Your task to perform on an android device: check storage Image 0: 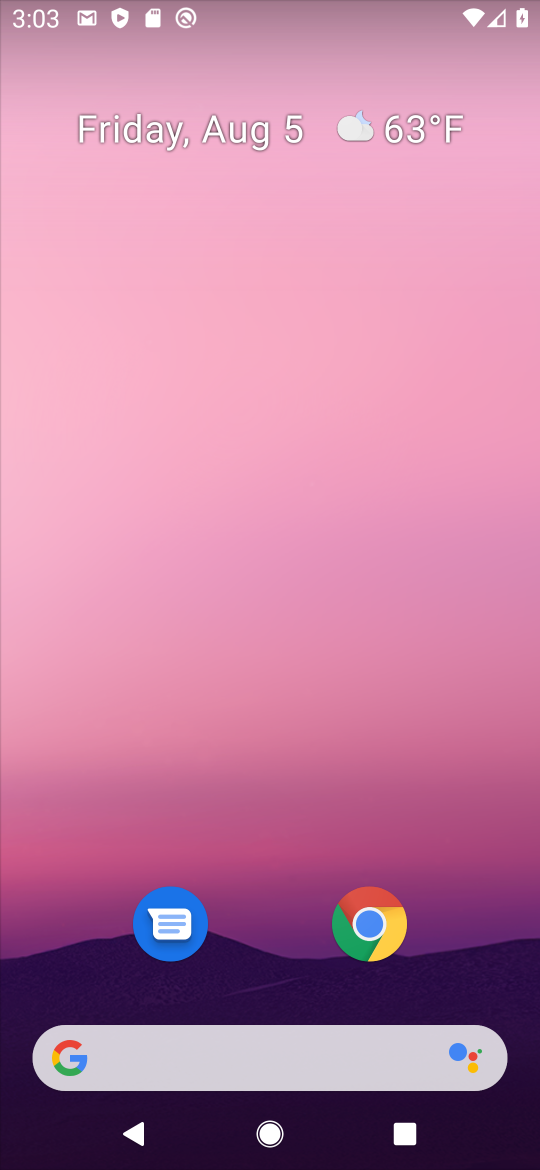
Step 0: drag from (276, 978) to (319, 150)
Your task to perform on an android device: check storage Image 1: 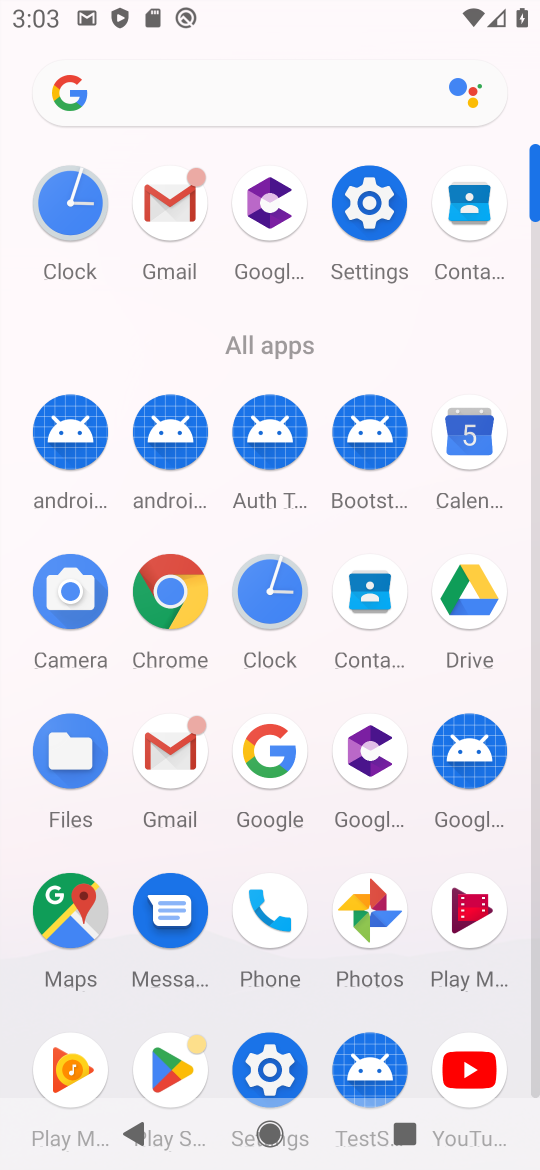
Step 1: click (277, 1052)
Your task to perform on an android device: check storage Image 2: 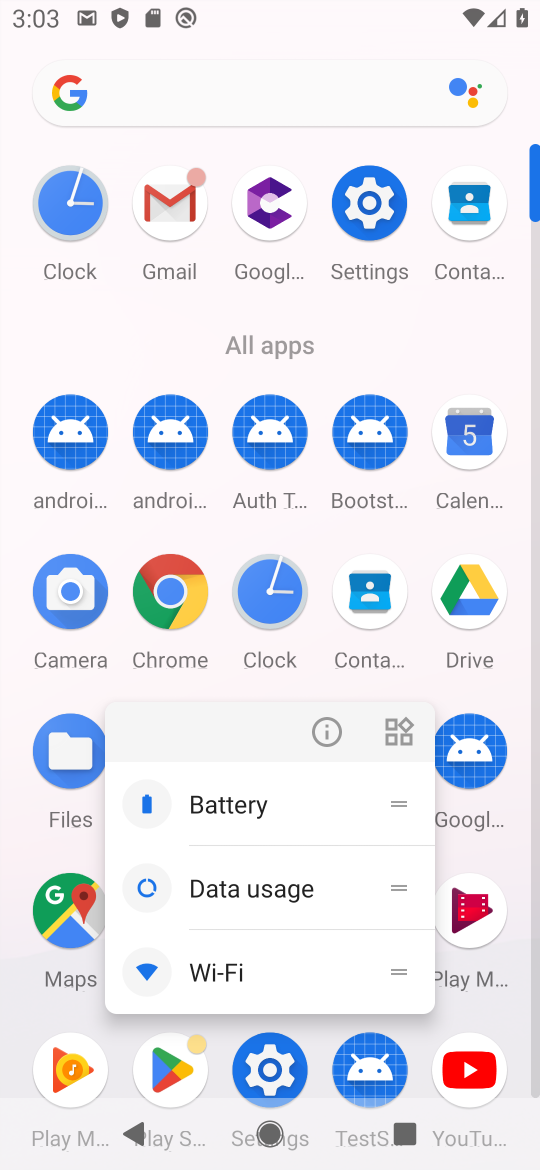
Step 2: click (270, 1069)
Your task to perform on an android device: check storage Image 3: 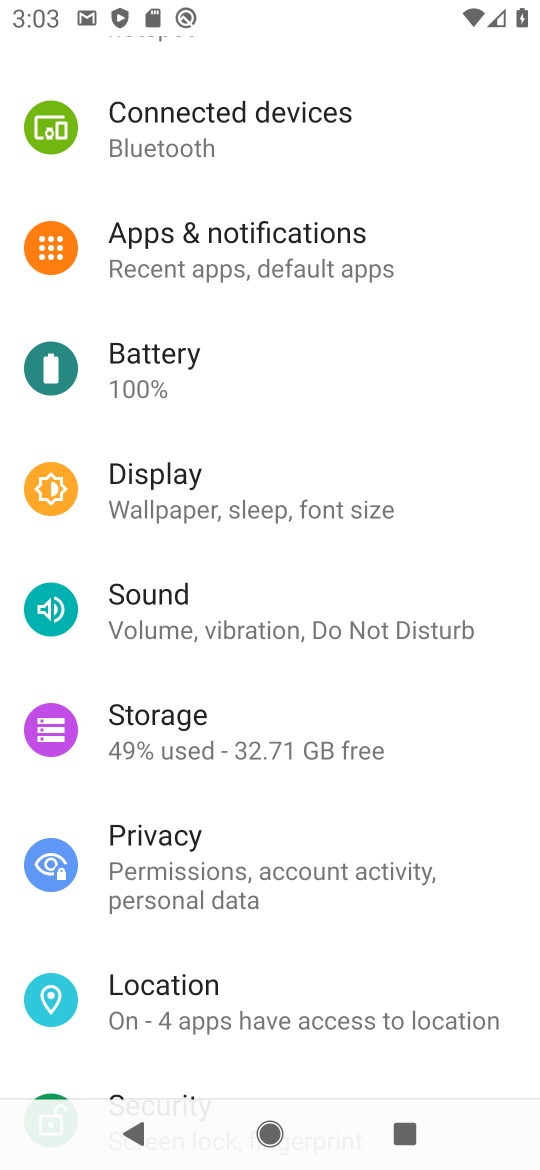
Step 3: click (264, 744)
Your task to perform on an android device: check storage Image 4: 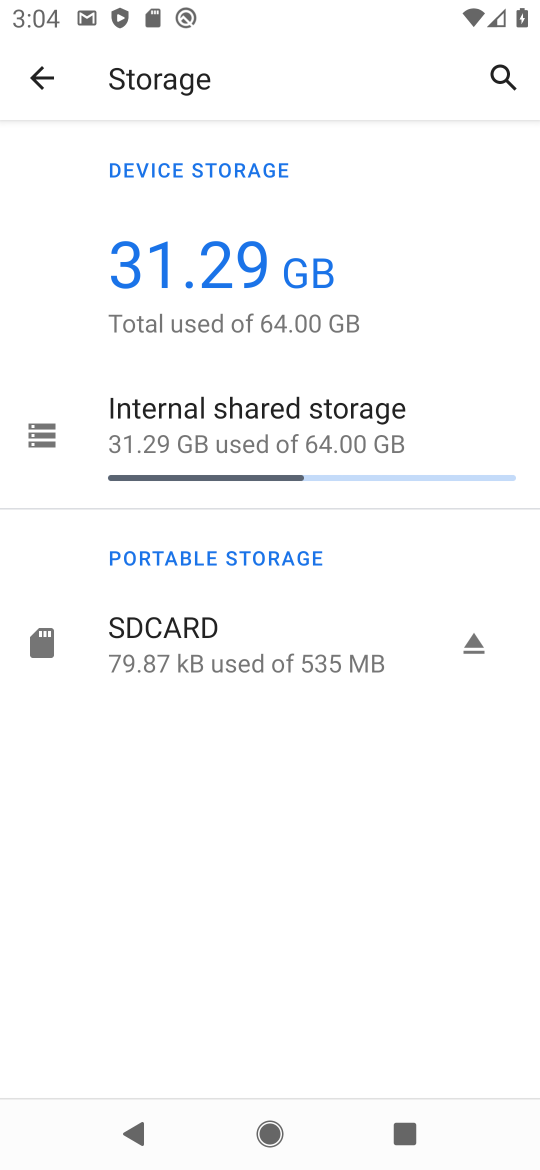
Step 4: task complete